Your task to perform on an android device: Go to Google Image 0: 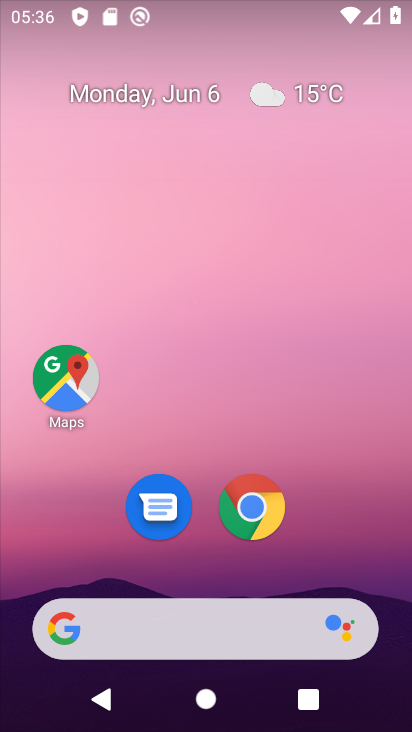
Step 0: drag from (208, 566) to (182, 0)
Your task to perform on an android device: Go to Google Image 1: 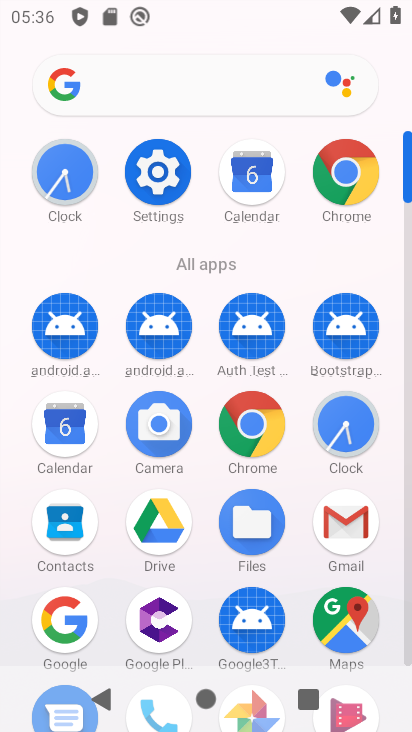
Step 1: click (60, 606)
Your task to perform on an android device: Go to Google Image 2: 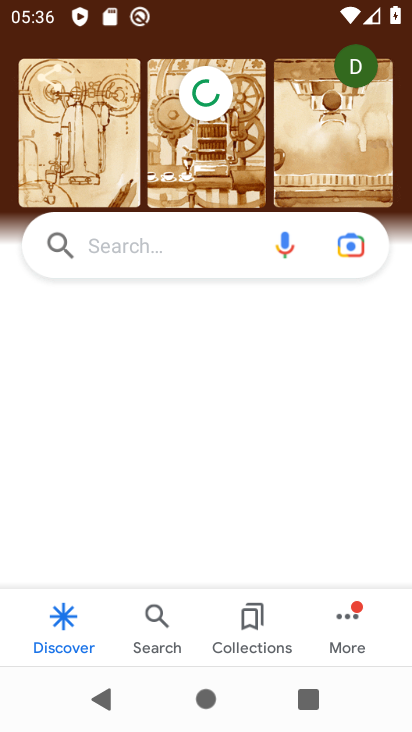
Step 2: task complete